Your task to perform on an android device: Turn on the flashlight Image 0: 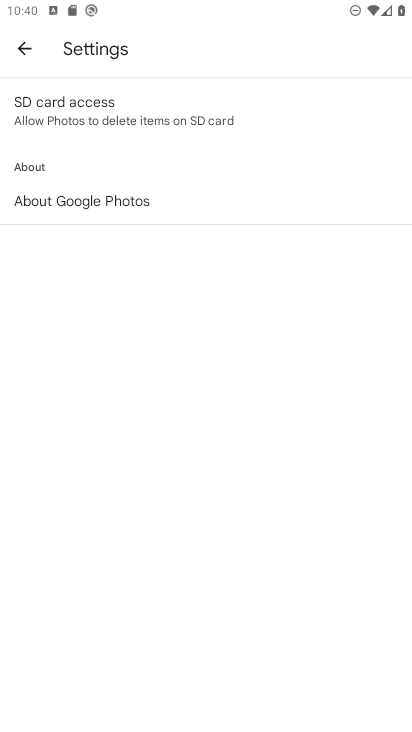
Step 0: press home button
Your task to perform on an android device: Turn on the flashlight Image 1: 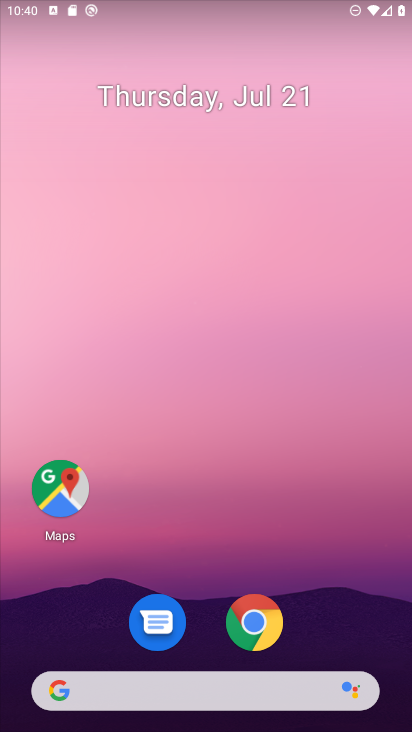
Step 1: task complete